Your task to perform on an android device: Open my contact list Image 0: 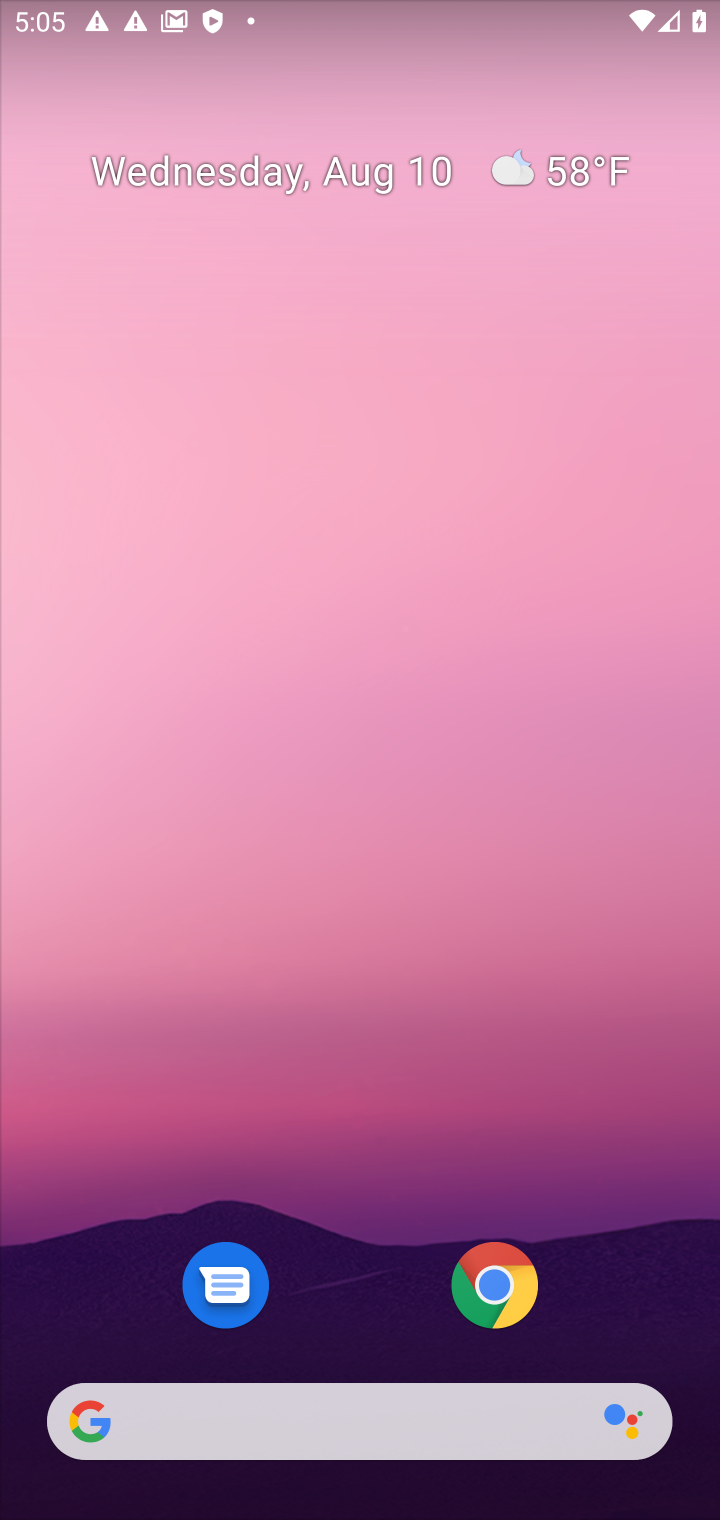
Step 0: drag from (397, 1285) to (323, 25)
Your task to perform on an android device: Open my contact list Image 1: 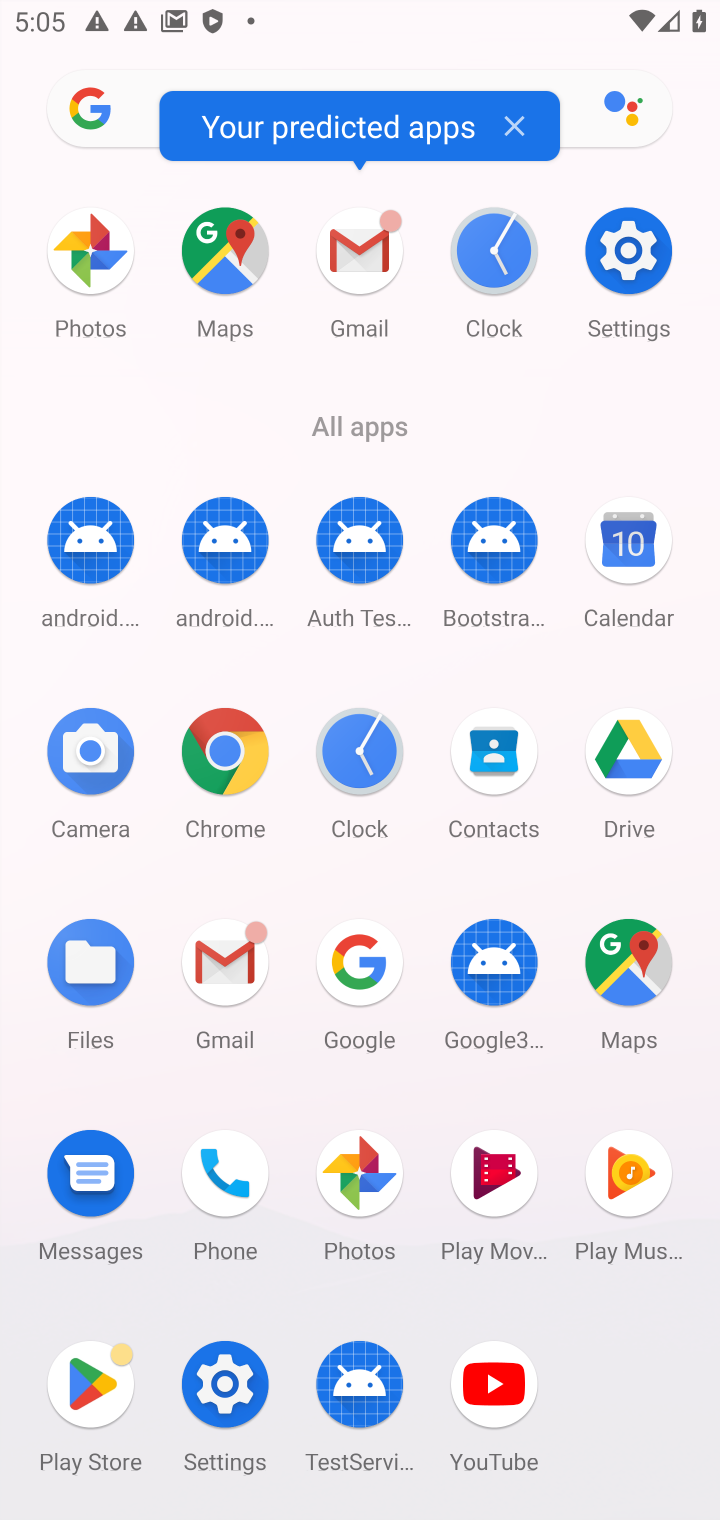
Step 1: click (499, 748)
Your task to perform on an android device: Open my contact list Image 2: 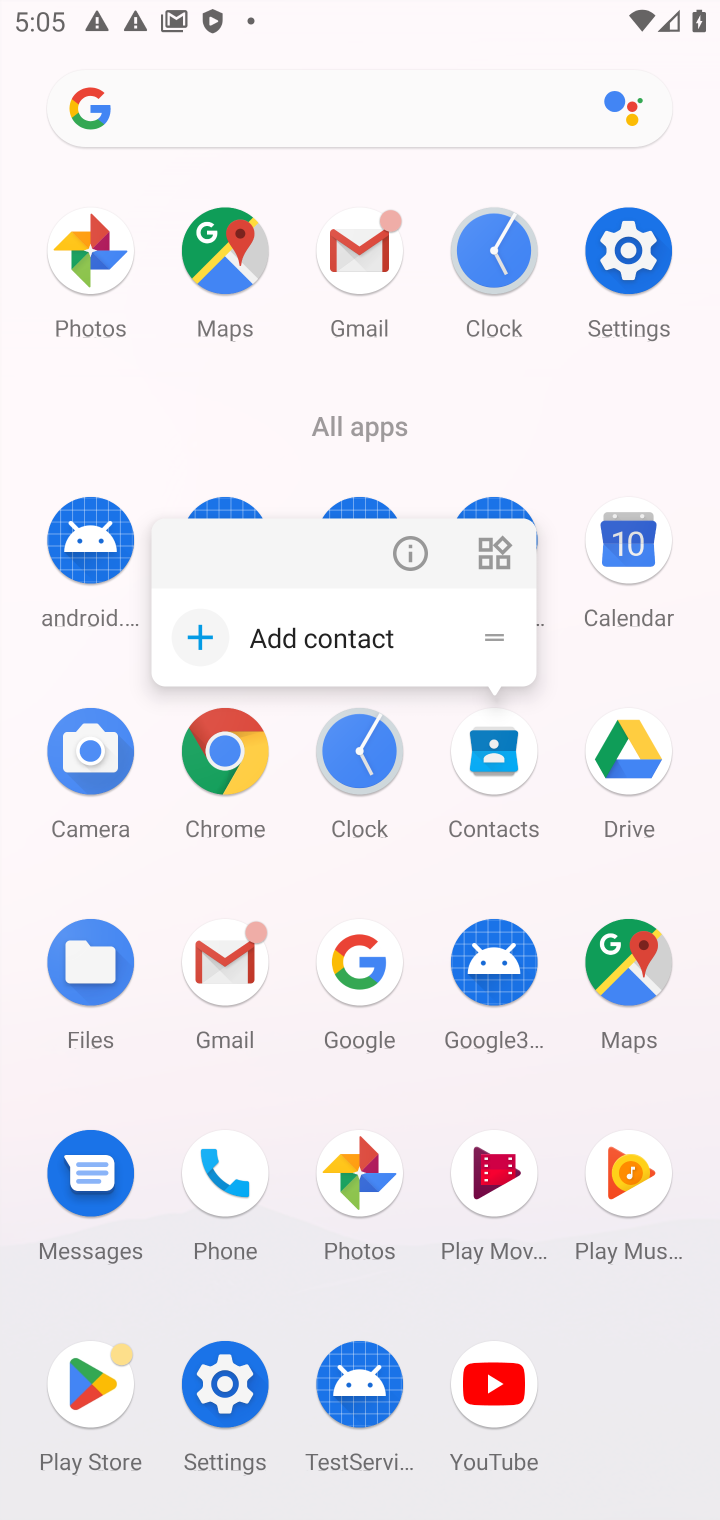
Step 2: click (471, 790)
Your task to perform on an android device: Open my contact list Image 3: 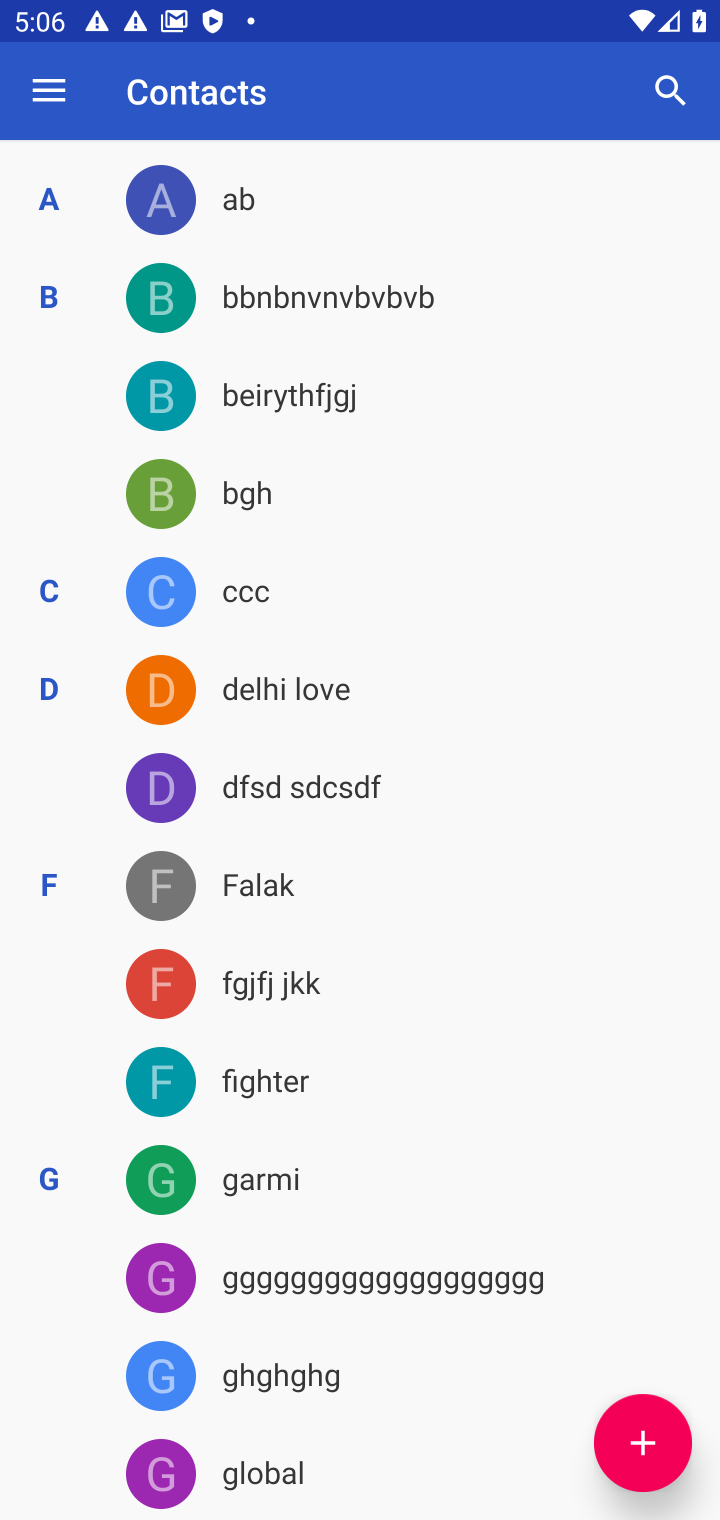
Step 3: task complete